Your task to perform on an android device: turn pop-ups on in chrome Image 0: 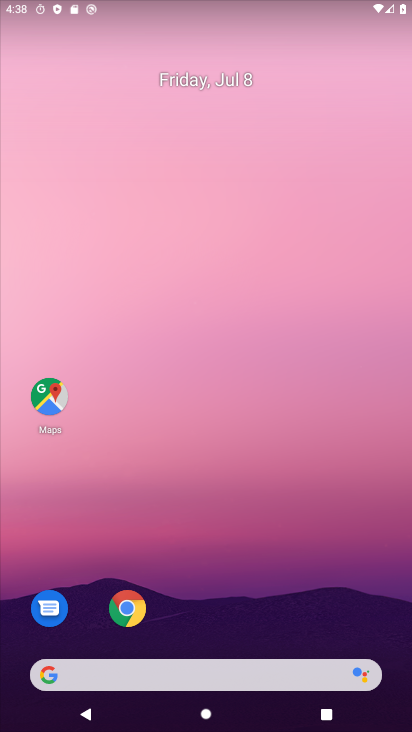
Step 0: press home button
Your task to perform on an android device: turn pop-ups on in chrome Image 1: 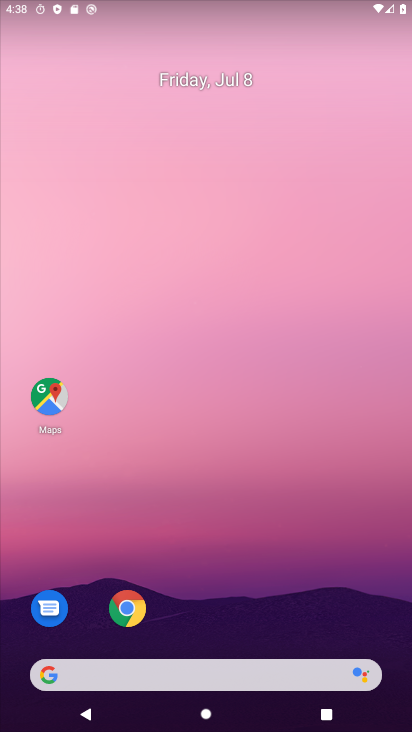
Step 1: drag from (312, 569) to (250, 13)
Your task to perform on an android device: turn pop-ups on in chrome Image 2: 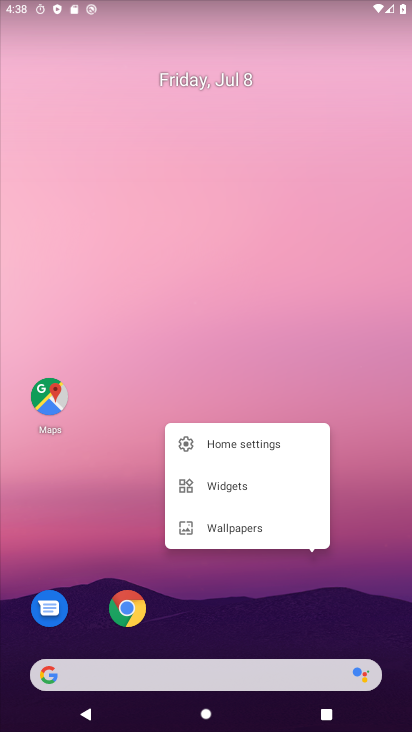
Step 2: press home button
Your task to perform on an android device: turn pop-ups on in chrome Image 3: 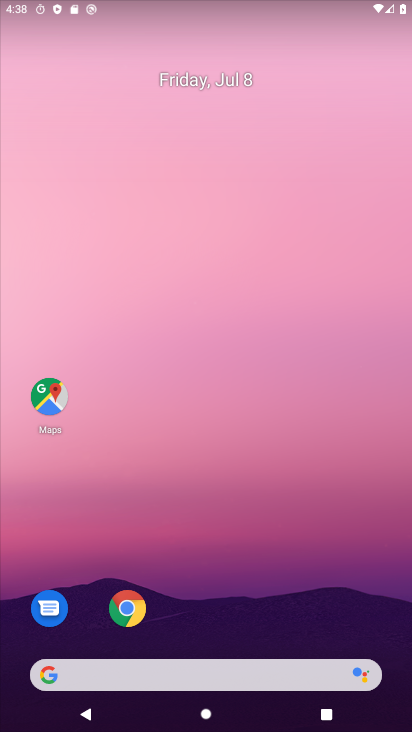
Step 3: drag from (218, 593) to (308, 17)
Your task to perform on an android device: turn pop-ups on in chrome Image 4: 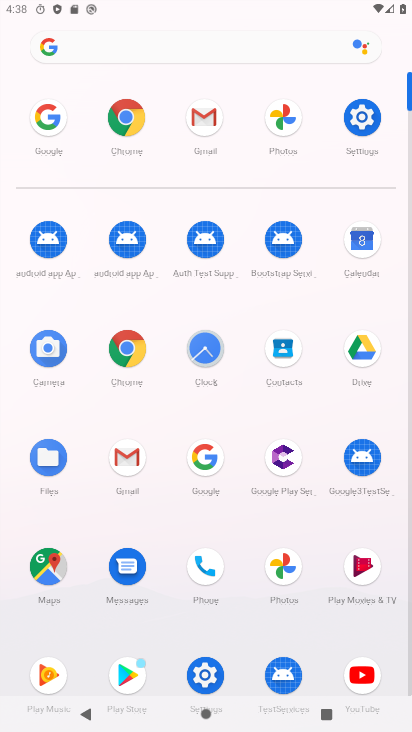
Step 4: click (125, 121)
Your task to perform on an android device: turn pop-ups on in chrome Image 5: 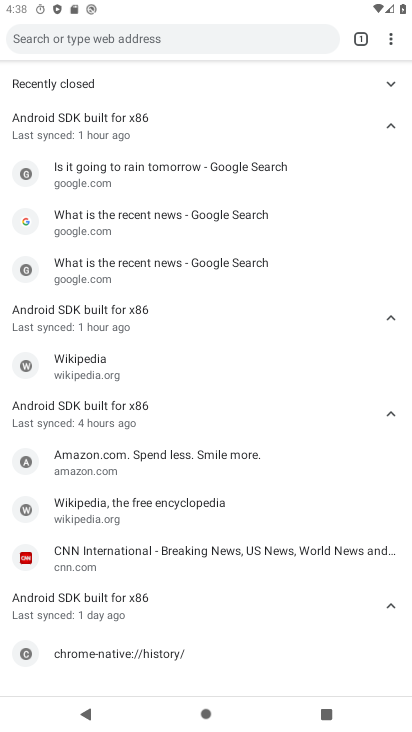
Step 5: drag from (392, 32) to (242, 325)
Your task to perform on an android device: turn pop-ups on in chrome Image 6: 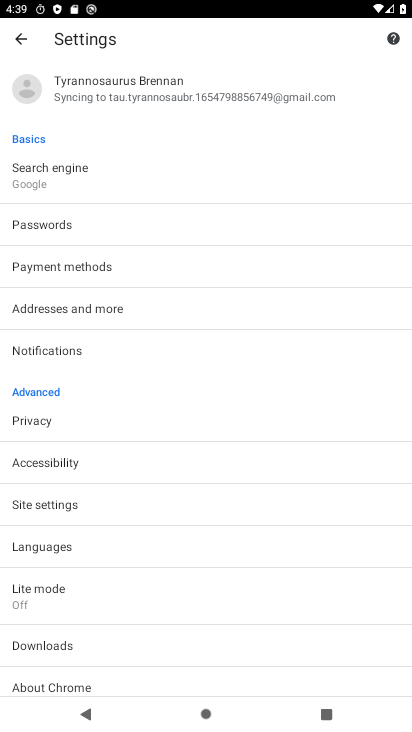
Step 6: click (55, 506)
Your task to perform on an android device: turn pop-ups on in chrome Image 7: 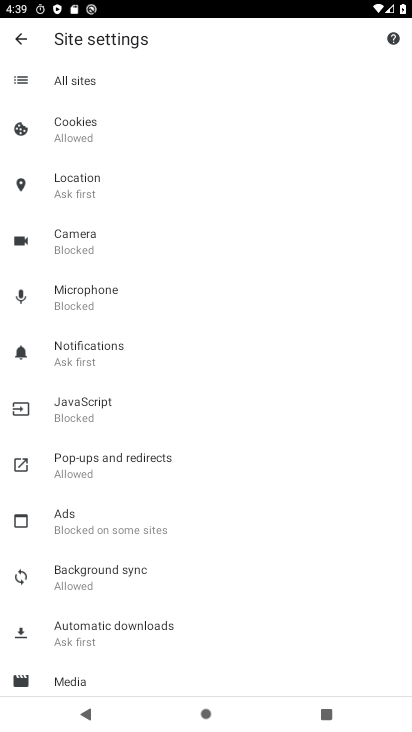
Step 7: click (82, 460)
Your task to perform on an android device: turn pop-ups on in chrome Image 8: 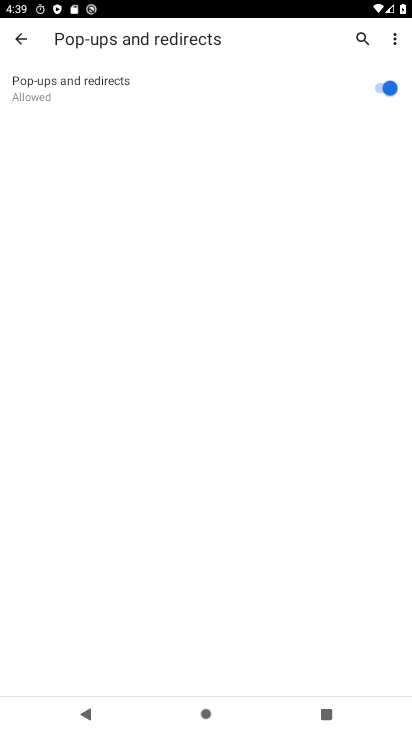
Step 8: task complete